Your task to perform on an android device: turn off javascript in the chrome app Image 0: 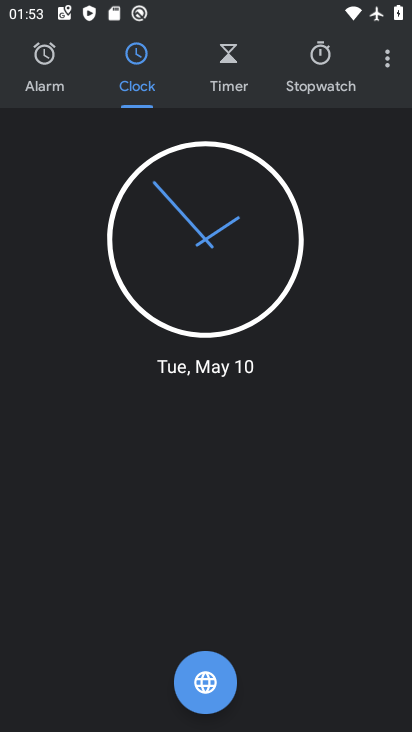
Step 0: press home button
Your task to perform on an android device: turn off javascript in the chrome app Image 1: 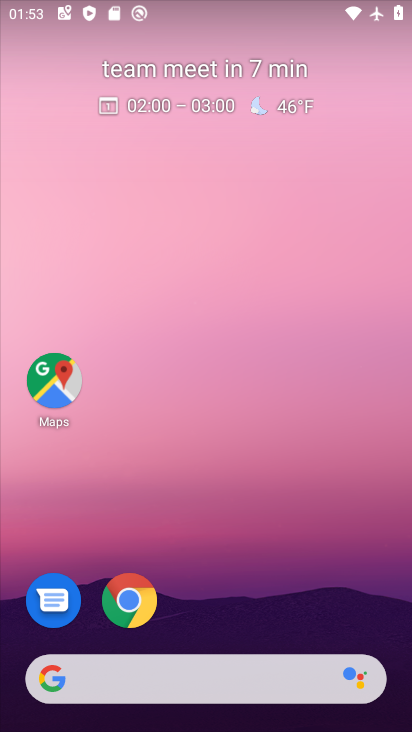
Step 1: drag from (209, 646) to (119, 24)
Your task to perform on an android device: turn off javascript in the chrome app Image 2: 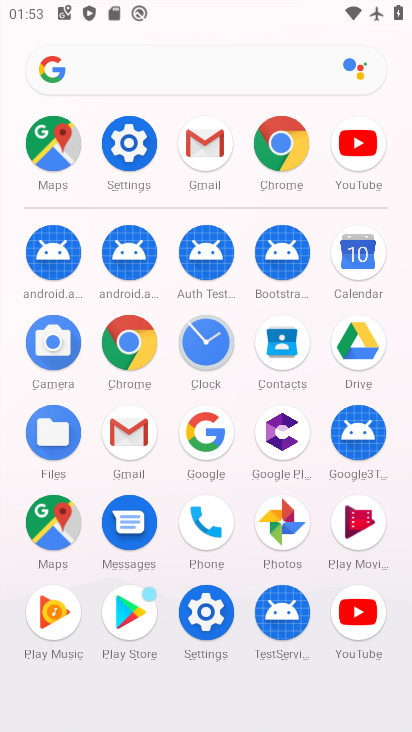
Step 2: click (288, 161)
Your task to perform on an android device: turn off javascript in the chrome app Image 3: 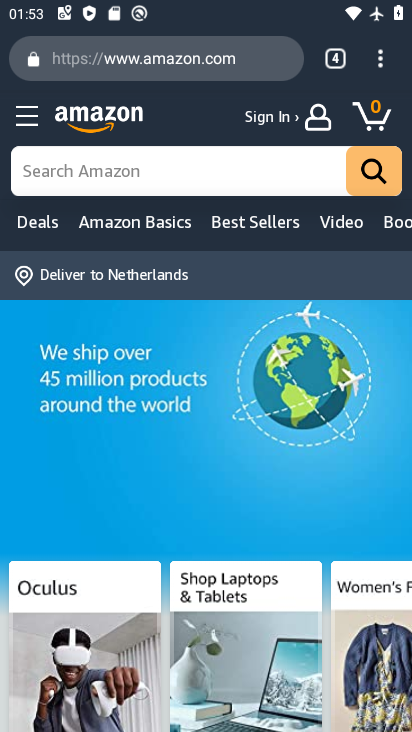
Step 3: click (383, 70)
Your task to perform on an android device: turn off javascript in the chrome app Image 4: 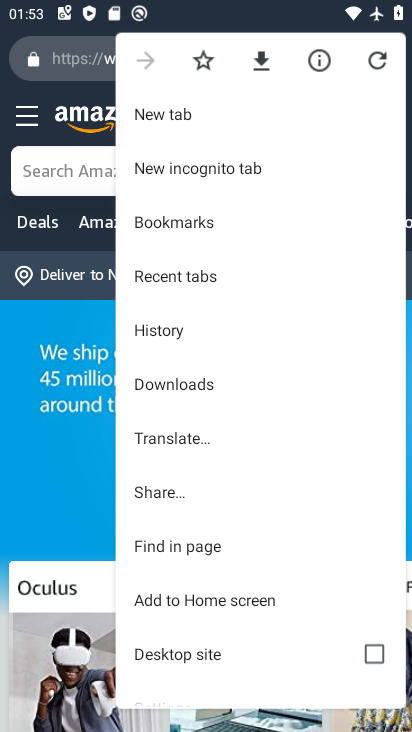
Step 4: drag from (203, 558) to (166, 226)
Your task to perform on an android device: turn off javascript in the chrome app Image 5: 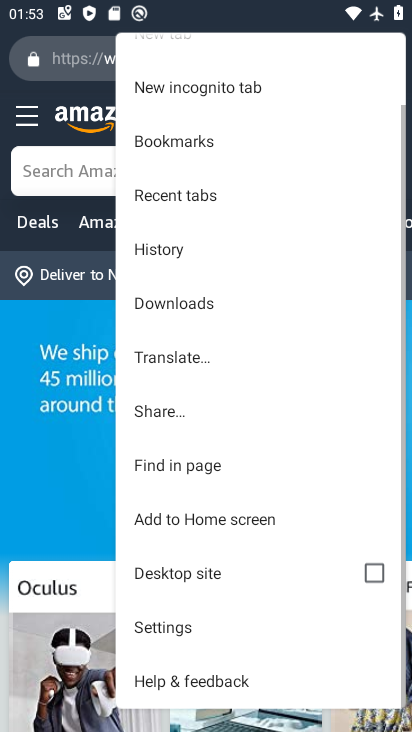
Step 5: click (142, 622)
Your task to perform on an android device: turn off javascript in the chrome app Image 6: 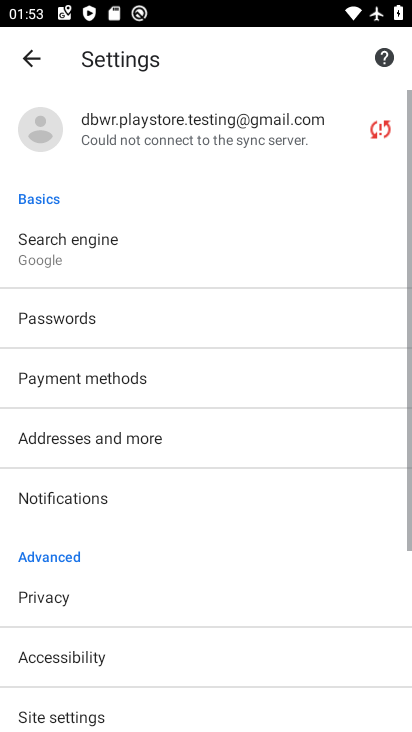
Step 6: drag from (174, 583) to (151, 256)
Your task to perform on an android device: turn off javascript in the chrome app Image 7: 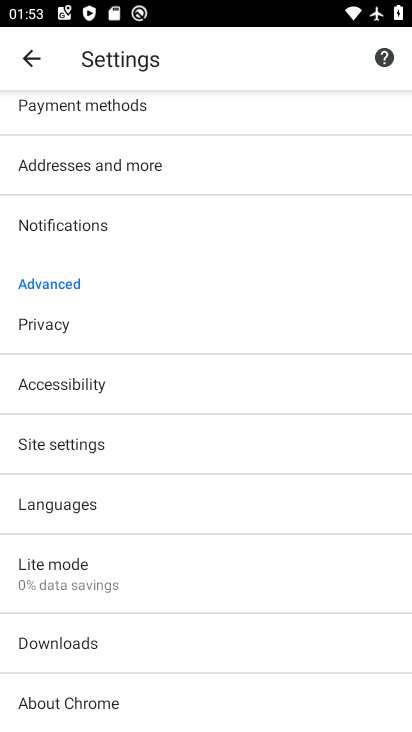
Step 7: click (79, 490)
Your task to perform on an android device: turn off javascript in the chrome app Image 8: 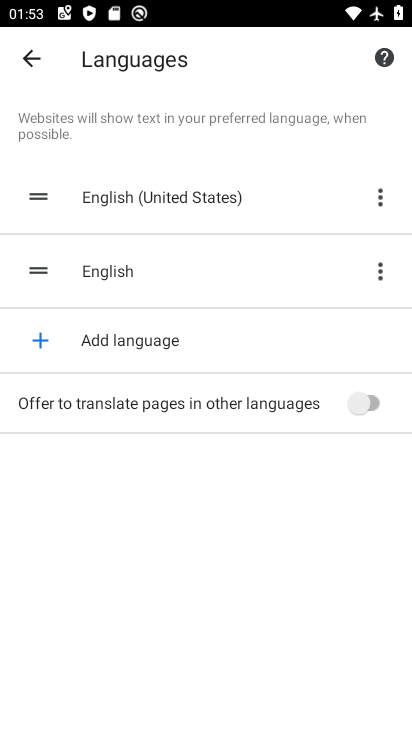
Step 8: click (27, 51)
Your task to perform on an android device: turn off javascript in the chrome app Image 9: 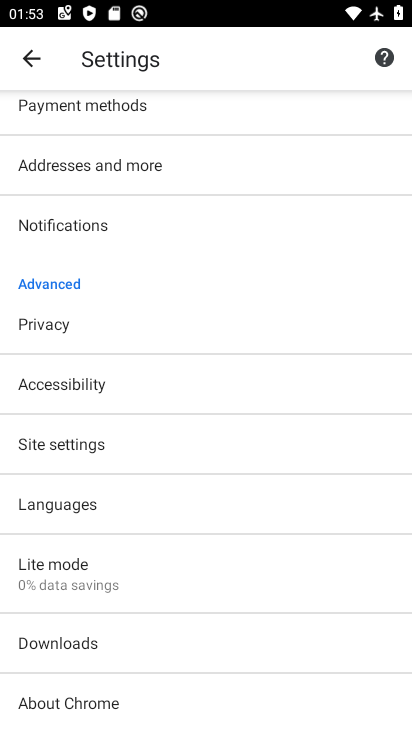
Step 9: click (37, 451)
Your task to perform on an android device: turn off javascript in the chrome app Image 10: 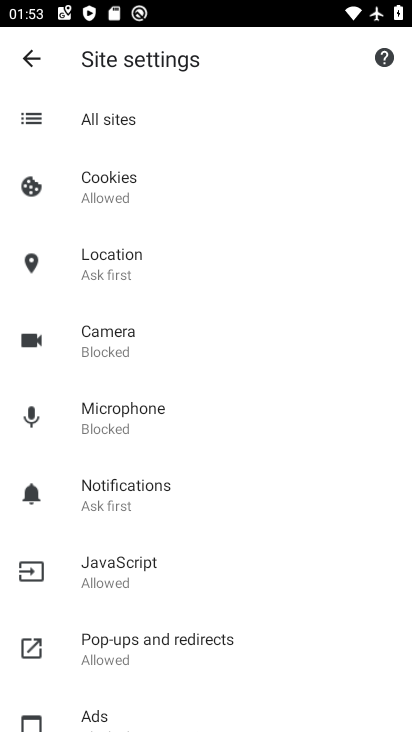
Step 10: click (99, 552)
Your task to perform on an android device: turn off javascript in the chrome app Image 11: 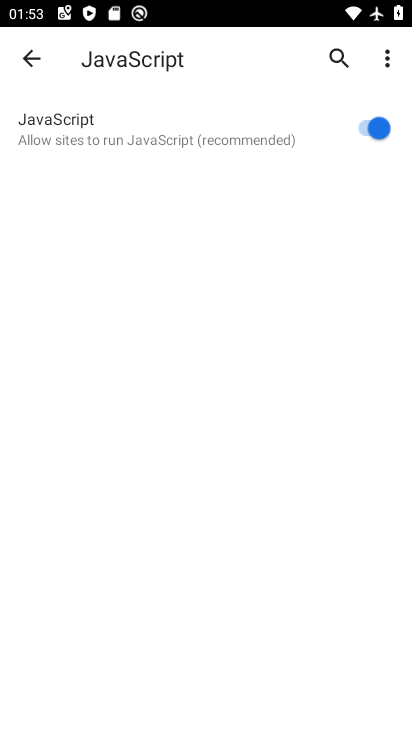
Step 11: click (368, 126)
Your task to perform on an android device: turn off javascript in the chrome app Image 12: 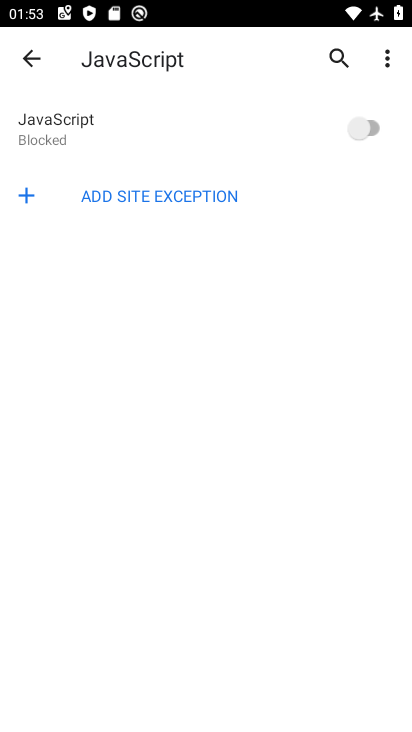
Step 12: task complete